Your task to perform on an android device: open sync settings in chrome Image 0: 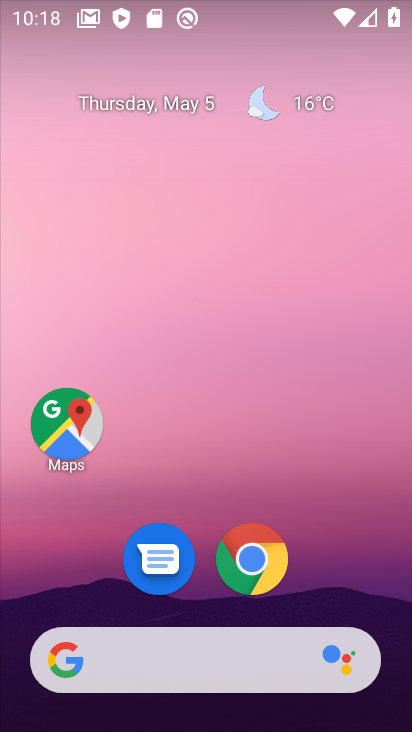
Step 0: drag from (356, 613) to (272, 245)
Your task to perform on an android device: open sync settings in chrome Image 1: 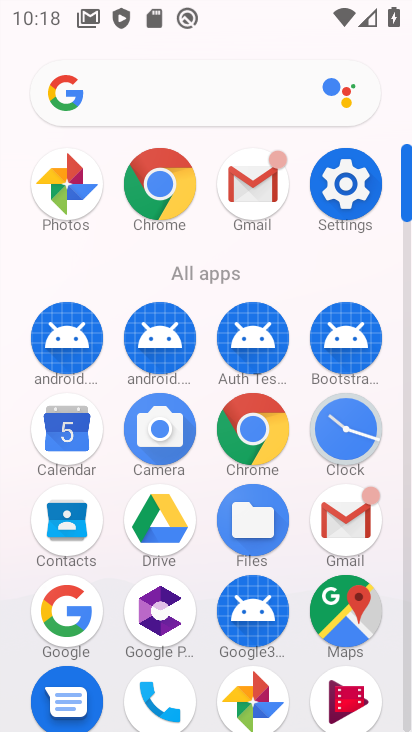
Step 1: click (162, 175)
Your task to perform on an android device: open sync settings in chrome Image 2: 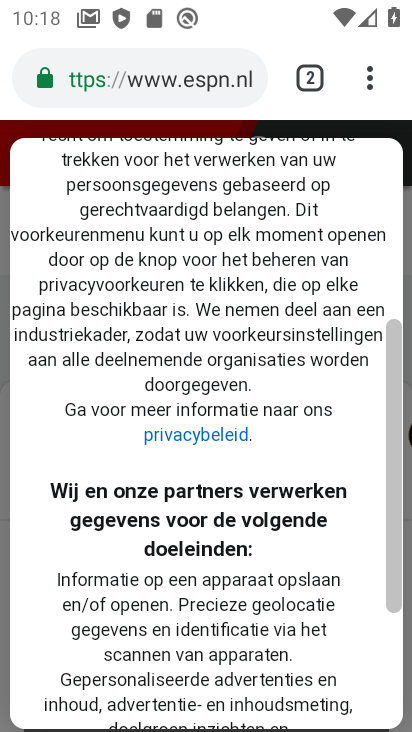
Step 2: drag from (376, 70) to (217, 617)
Your task to perform on an android device: open sync settings in chrome Image 3: 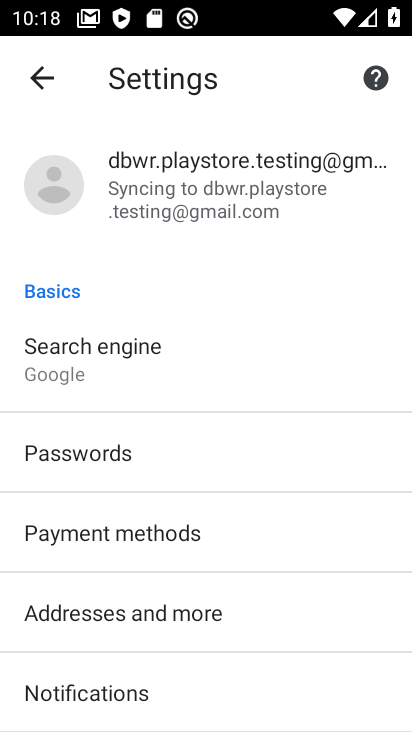
Step 3: click (209, 208)
Your task to perform on an android device: open sync settings in chrome Image 4: 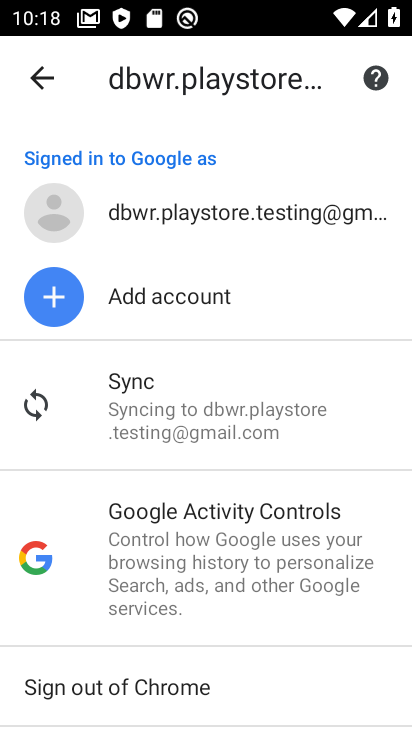
Step 4: click (257, 386)
Your task to perform on an android device: open sync settings in chrome Image 5: 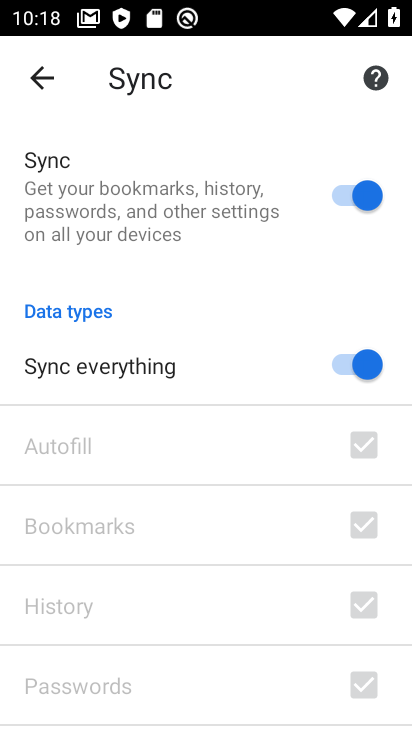
Step 5: task complete